Your task to perform on an android device: toggle translation in the chrome app Image 0: 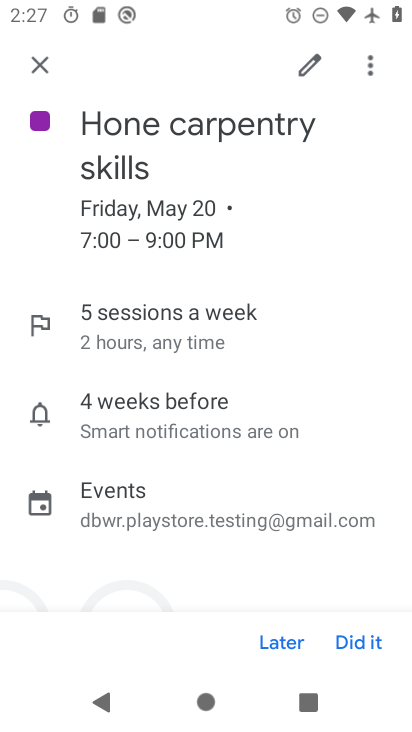
Step 0: press home button
Your task to perform on an android device: toggle translation in the chrome app Image 1: 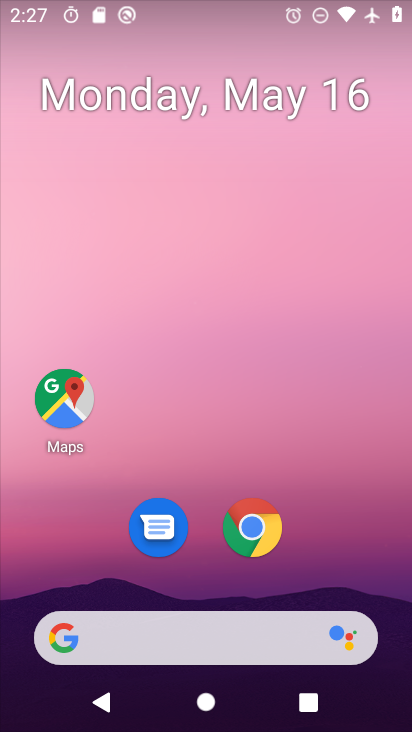
Step 1: click (246, 538)
Your task to perform on an android device: toggle translation in the chrome app Image 2: 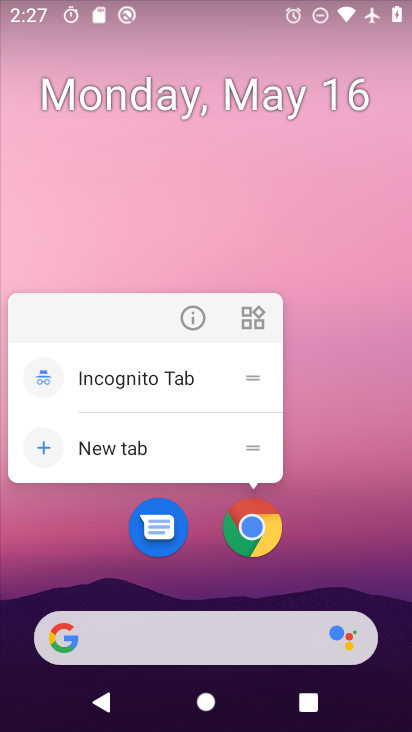
Step 2: click (247, 534)
Your task to perform on an android device: toggle translation in the chrome app Image 3: 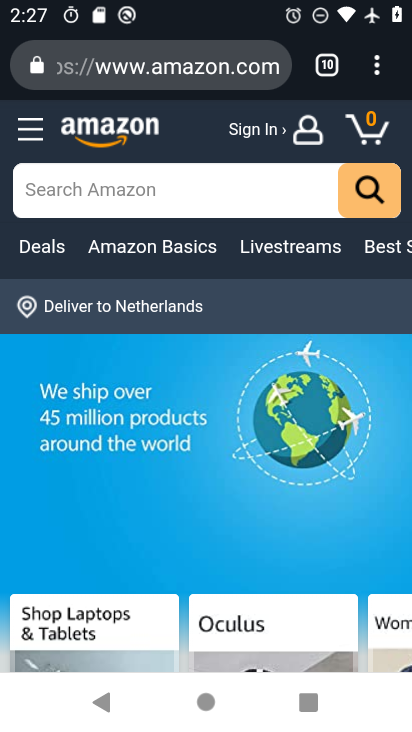
Step 3: drag from (377, 80) to (255, 578)
Your task to perform on an android device: toggle translation in the chrome app Image 4: 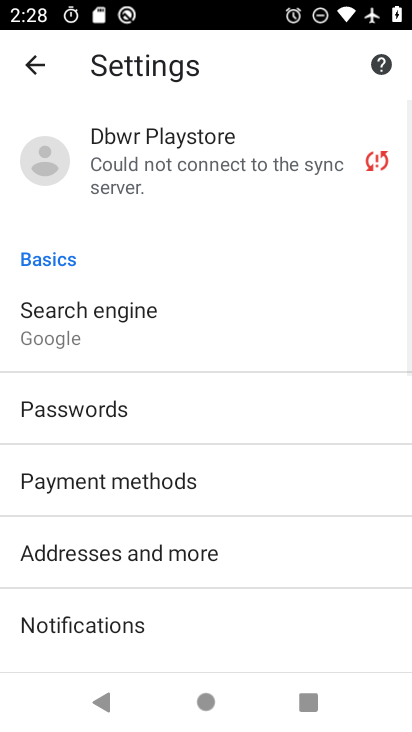
Step 4: drag from (216, 614) to (359, 234)
Your task to perform on an android device: toggle translation in the chrome app Image 5: 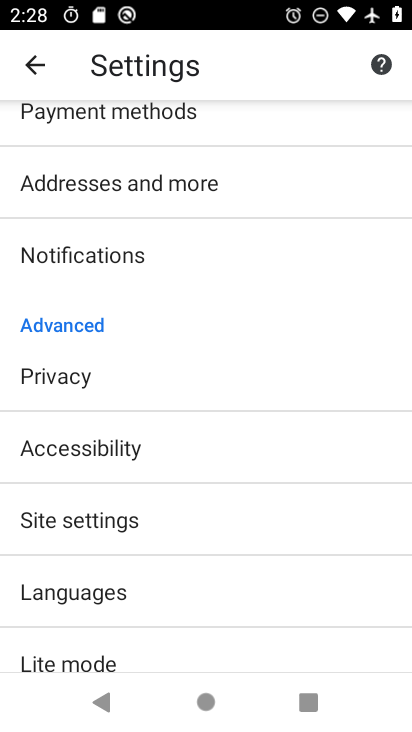
Step 5: click (130, 583)
Your task to perform on an android device: toggle translation in the chrome app Image 6: 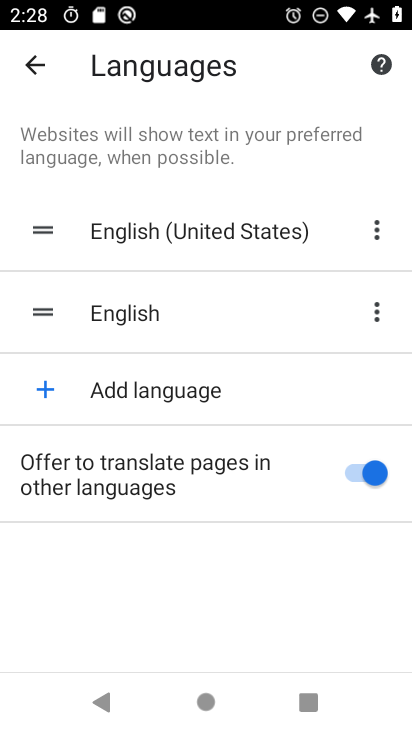
Step 6: click (358, 477)
Your task to perform on an android device: toggle translation in the chrome app Image 7: 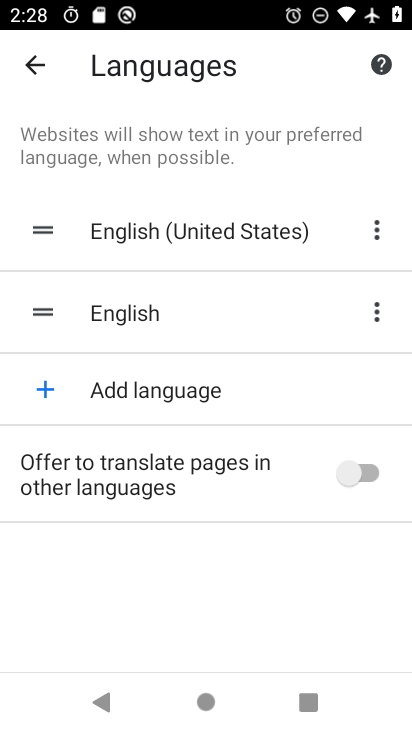
Step 7: task complete